Your task to perform on an android device: Go to CNN.com Image 0: 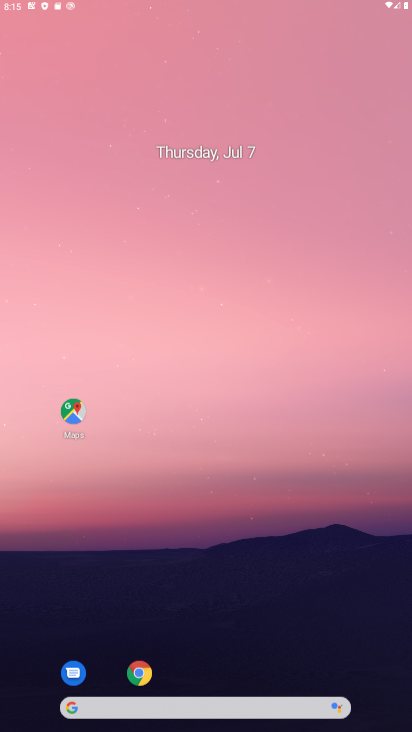
Step 0: press home button
Your task to perform on an android device: Go to CNN.com Image 1: 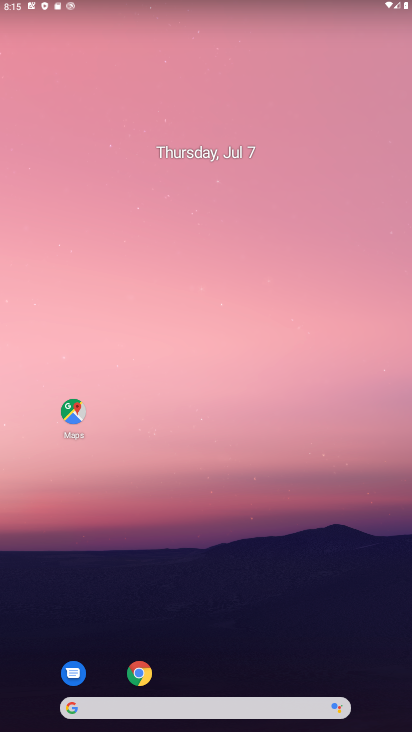
Step 1: click (69, 709)
Your task to perform on an android device: Go to CNN.com Image 2: 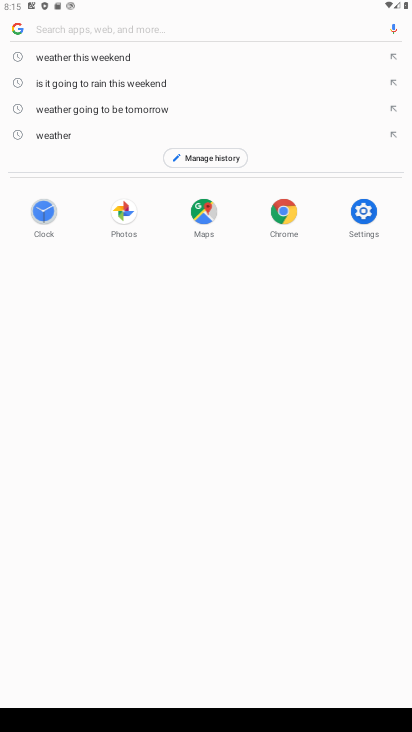
Step 2: type "cnn.com"
Your task to perform on an android device: Go to CNN.com Image 3: 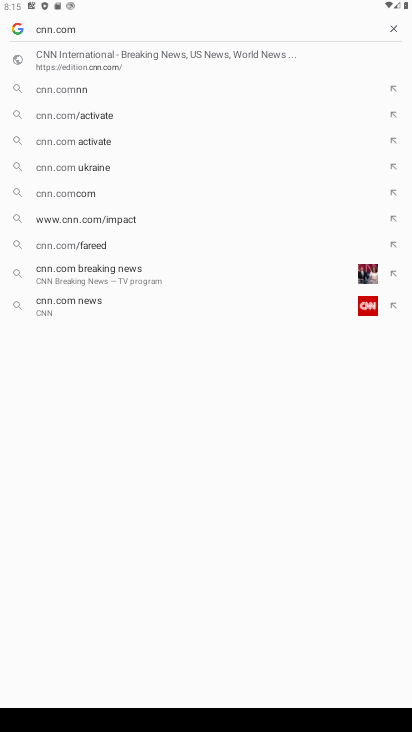
Step 3: click (103, 52)
Your task to perform on an android device: Go to CNN.com Image 4: 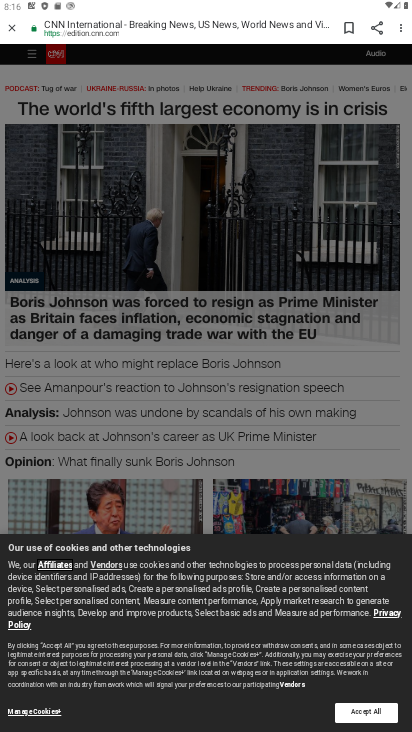
Step 4: task complete